Your task to perform on an android device: Open privacy settings Image 0: 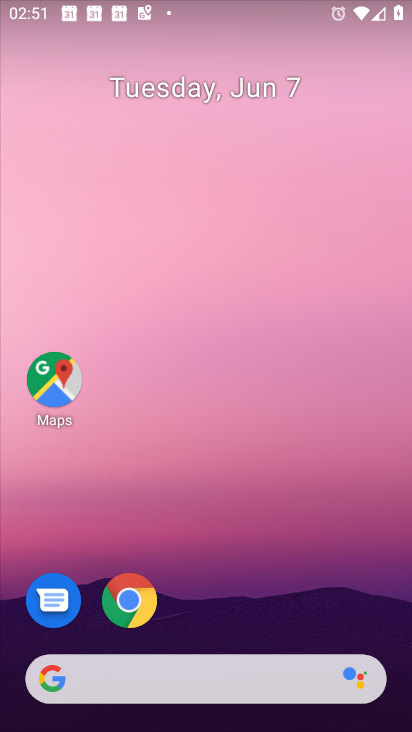
Step 0: drag from (206, 723) to (206, 163)
Your task to perform on an android device: Open privacy settings Image 1: 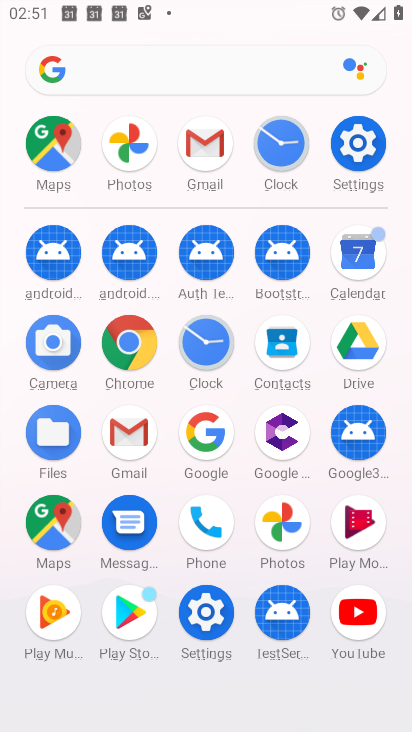
Step 1: click (359, 143)
Your task to perform on an android device: Open privacy settings Image 2: 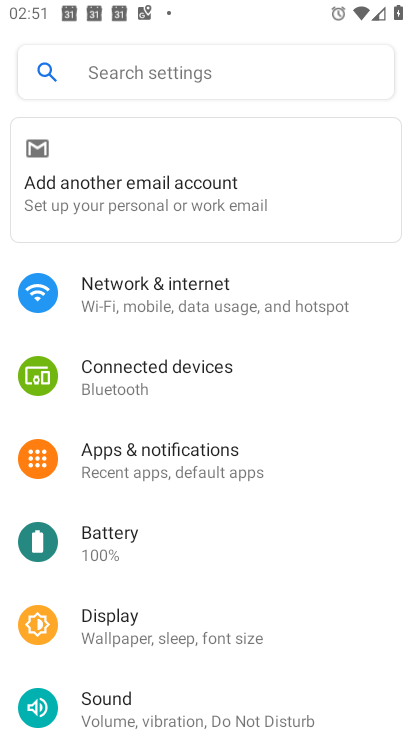
Step 2: drag from (142, 678) to (142, 319)
Your task to perform on an android device: Open privacy settings Image 3: 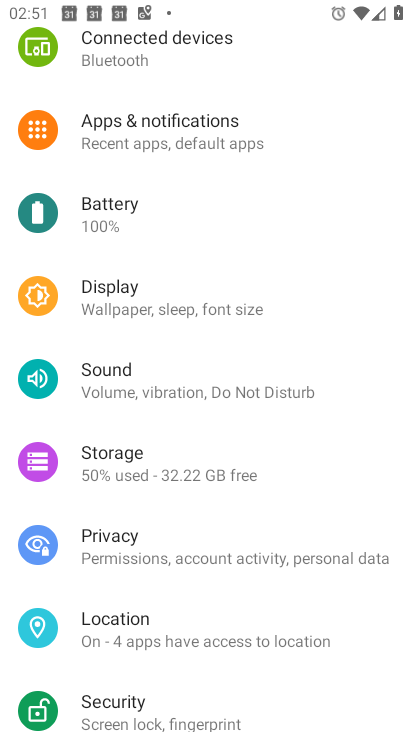
Step 3: click (119, 549)
Your task to perform on an android device: Open privacy settings Image 4: 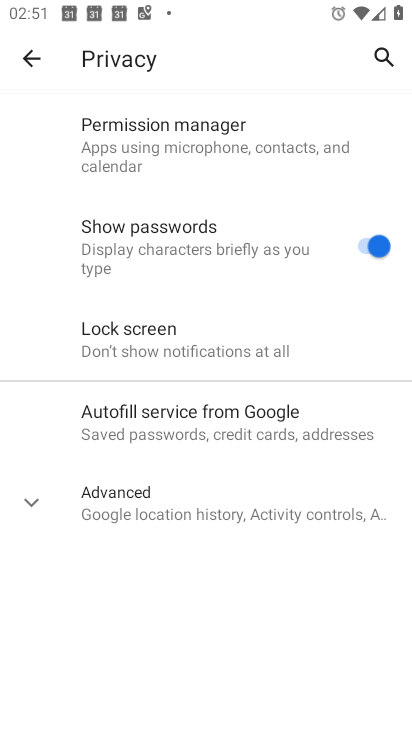
Step 4: task complete